Your task to perform on an android device: Go to CNN.com Image 0: 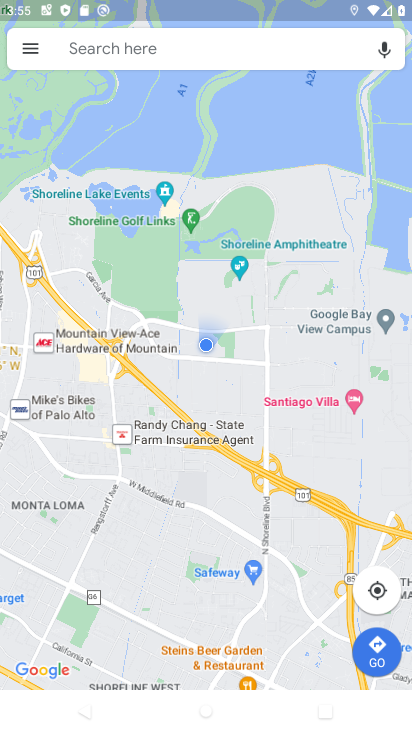
Step 0: press home button
Your task to perform on an android device: Go to CNN.com Image 1: 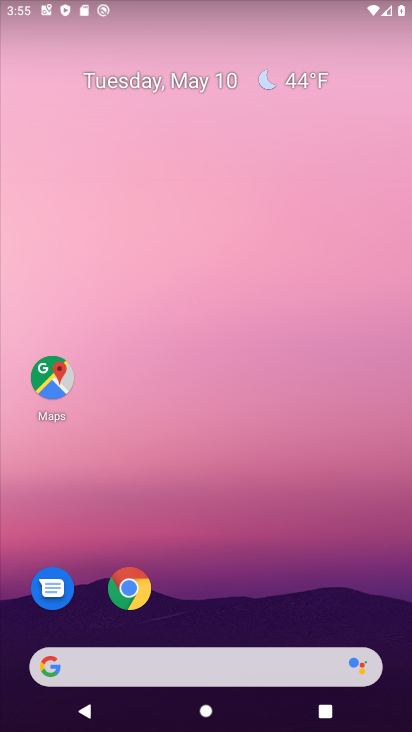
Step 1: click (133, 582)
Your task to perform on an android device: Go to CNN.com Image 2: 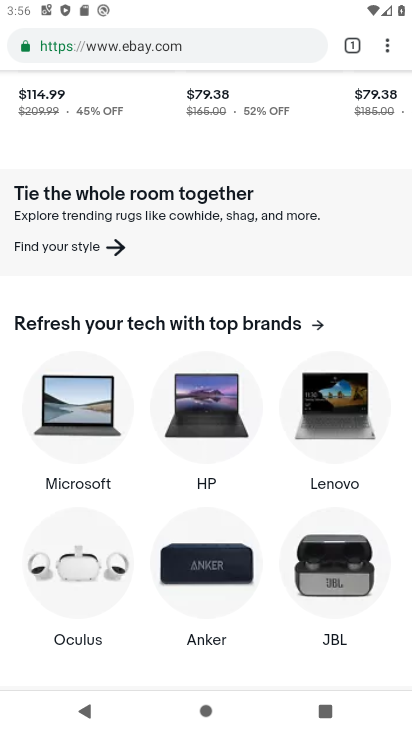
Step 2: click (195, 33)
Your task to perform on an android device: Go to CNN.com Image 3: 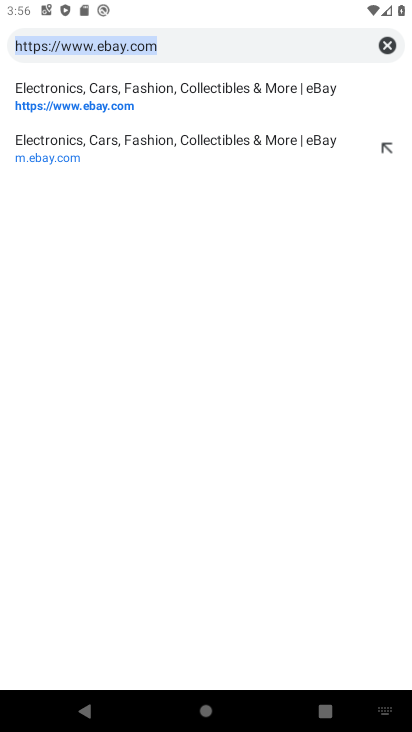
Step 3: type "cnn.com"
Your task to perform on an android device: Go to CNN.com Image 4: 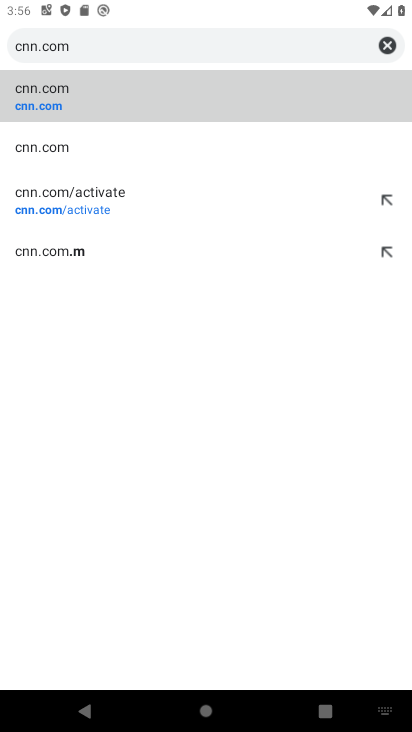
Step 4: click (179, 144)
Your task to perform on an android device: Go to CNN.com Image 5: 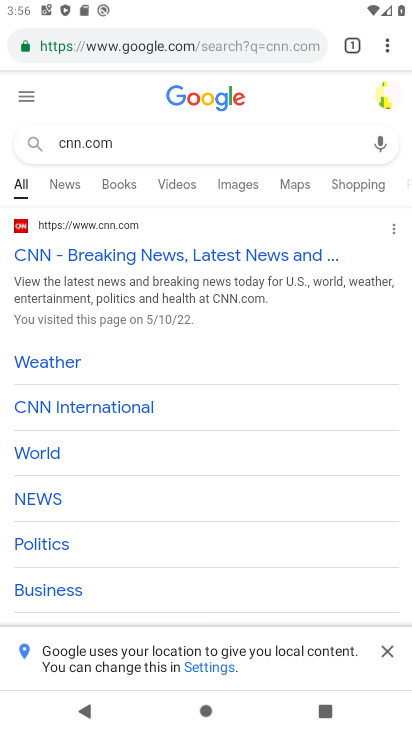
Step 5: click (139, 258)
Your task to perform on an android device: Go to CNN.com Image 6: 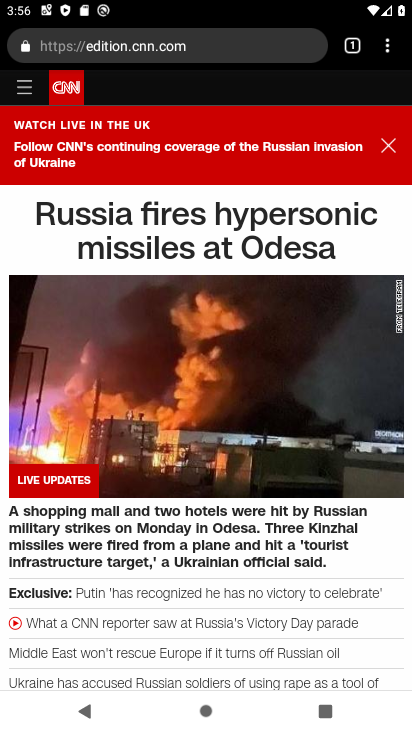
Step 6: task complete